Your task to perform on an android device: Open the map Image 0: 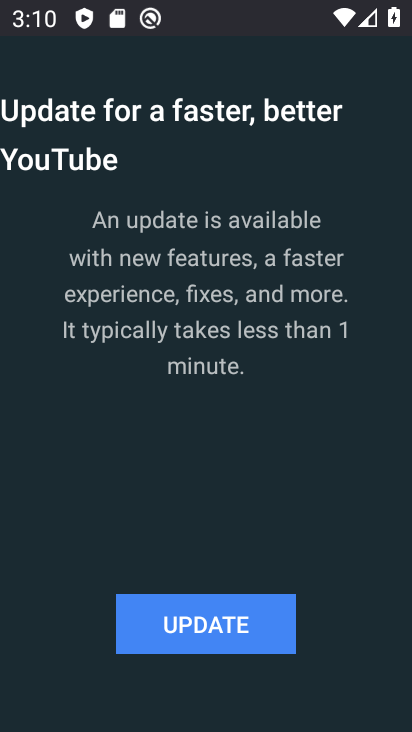
Step 0: press home button
Your task to perform on an android device: Open the map Image 1: 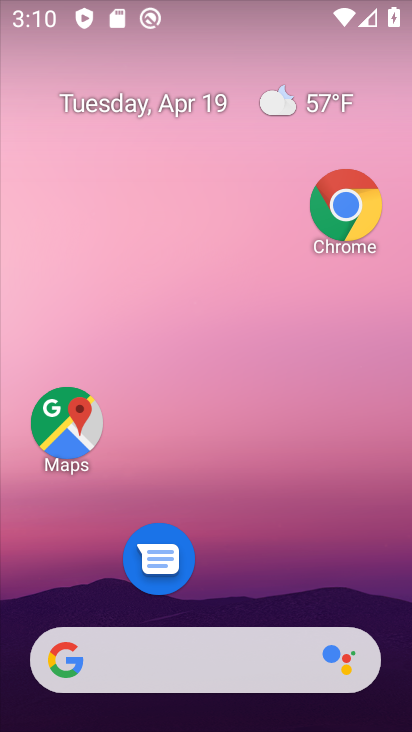
Step 1: drag from (240, 445) to (281, 157)
Your task to perform on an android device: Open the map Image 2: 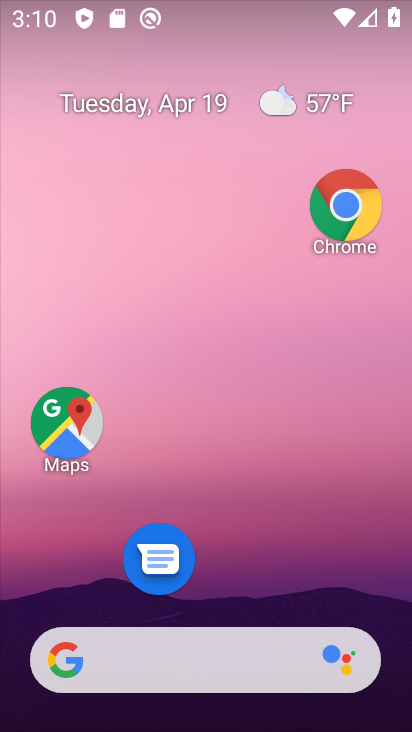
Step 2: drag from (262, 595) to (344, 112)
Your task to perform on an android device: Open the map Image 3: 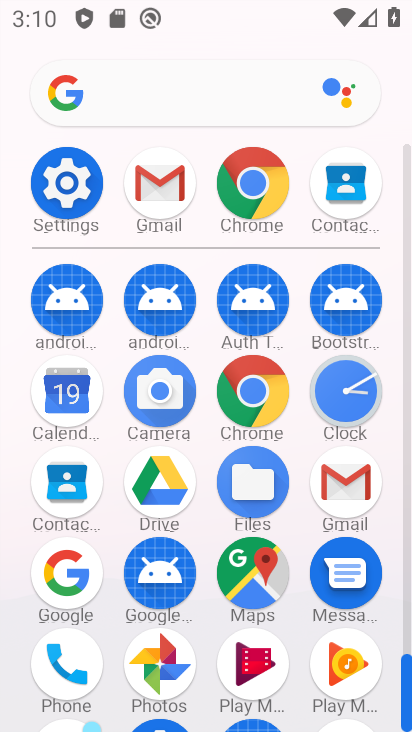
Step 3: click (257, 578)
Your task to perform on an android device: Open the map Image 4: 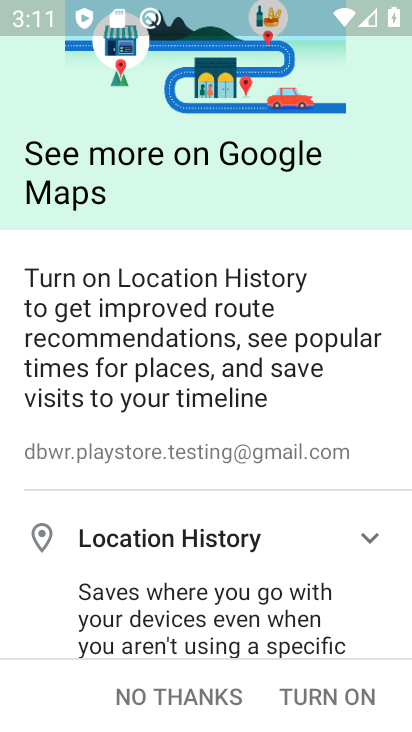
Step 4: task complete